Your task to perform on an android device: make emails show in primary in the gmail app Image 0: 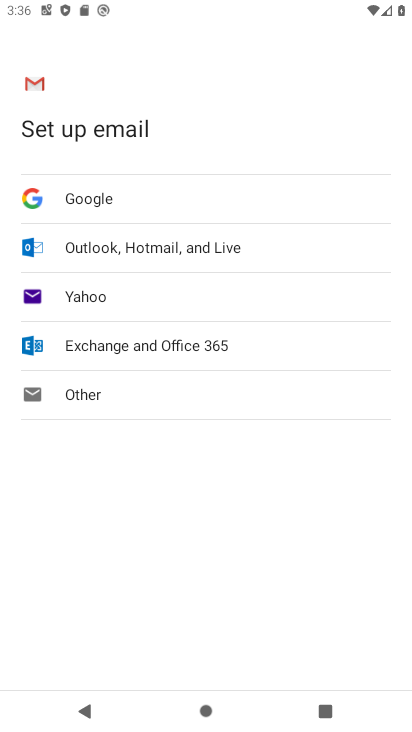
Step 0: press back button
Your task to perform on an android device: make emails show in primary in the gmail app Image 1: 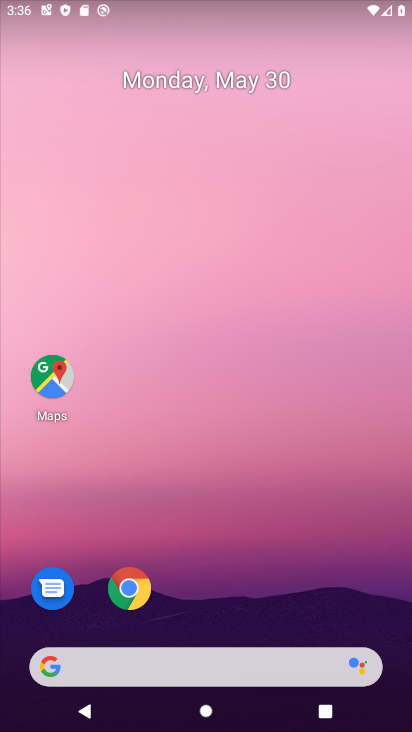
Step 1: drag from (215, 591) to (200, 11)
Your task to perform on an android device: make emails show in primary in the gmail app Image 2: 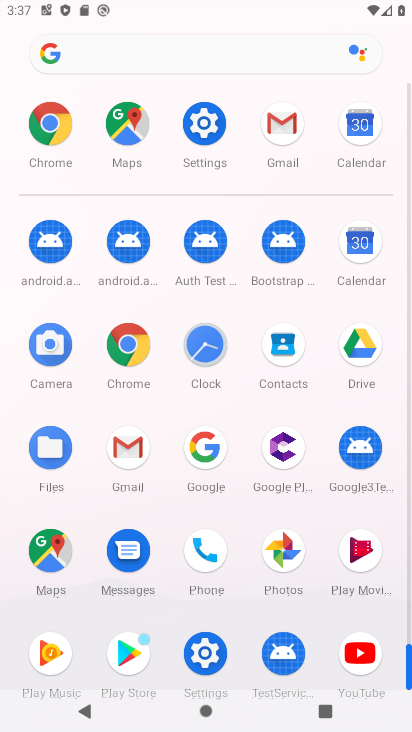
Step 2: drag from (6, 605) to (9, 298)
Your task to perform on an android device: make emails show in primary in the gmail app Image 3: 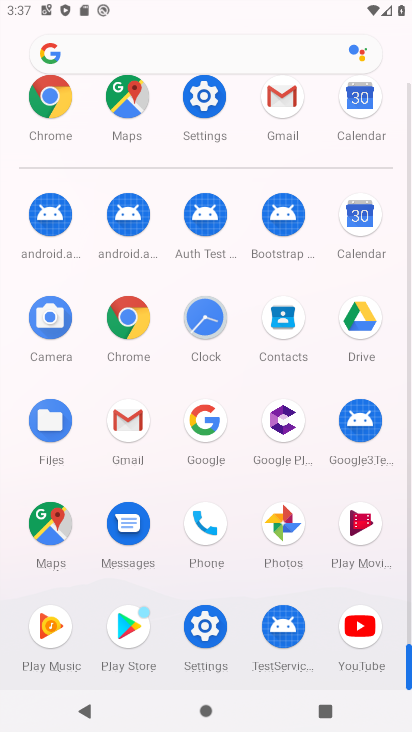
Step 3: click (124, 411)
Your task to perform on an android device: make emails show in primary in the gmail app Image 4: 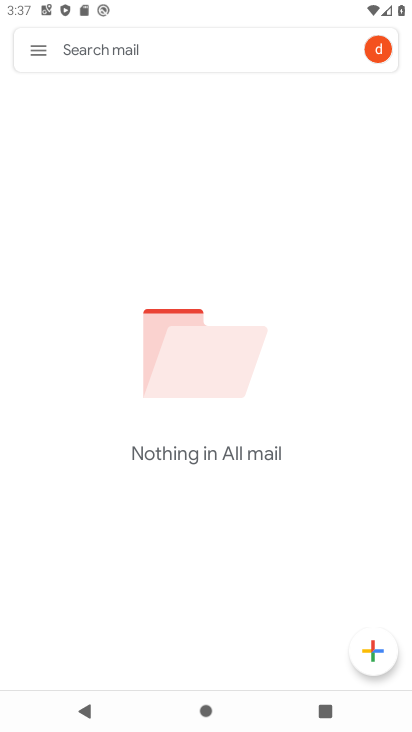
Step 4: click (37, 49)
Your task to perform on an android device: make emails show in primary in the gmail app Image 5: 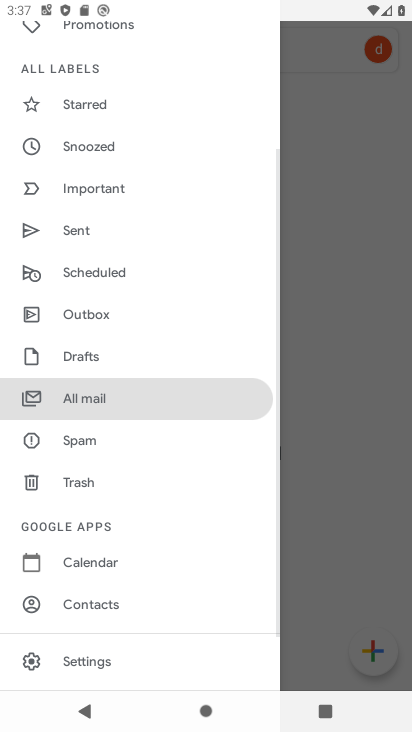
Step 5: click (95, 655)
Your task to perform on an android device: make emails show in primary in the gmail app Image 6: 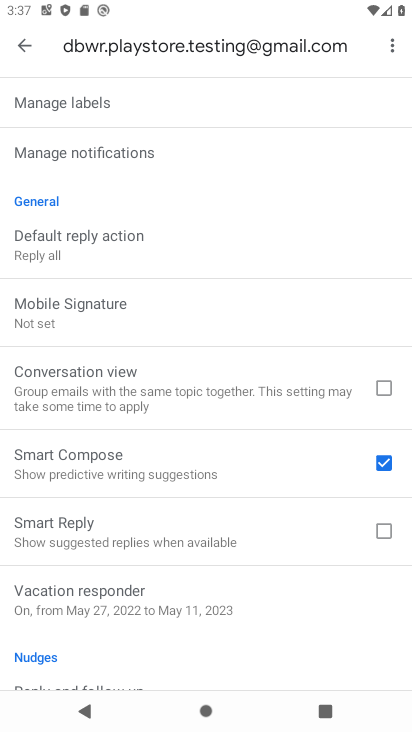
Step 6: drag from (219, 577) to (229, 169)
Your task to perform on an android device: make emails show in primary in the gmail app Image 7: 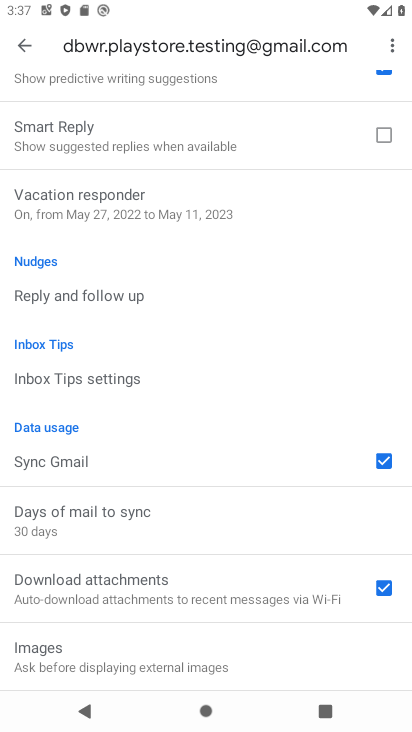
Step 7: drag from (205, 623) to (233, 288)
Your task to perform on an android device: make emails show in primary in the gmail app Image 8: 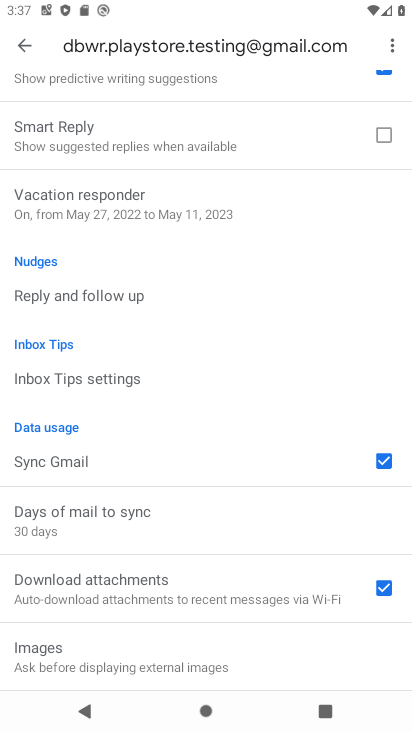
Step 8: drag from (256, 169) to (256, 632)
Your task to perform on an android device: make emails show in primary in the gmail app Image 9: 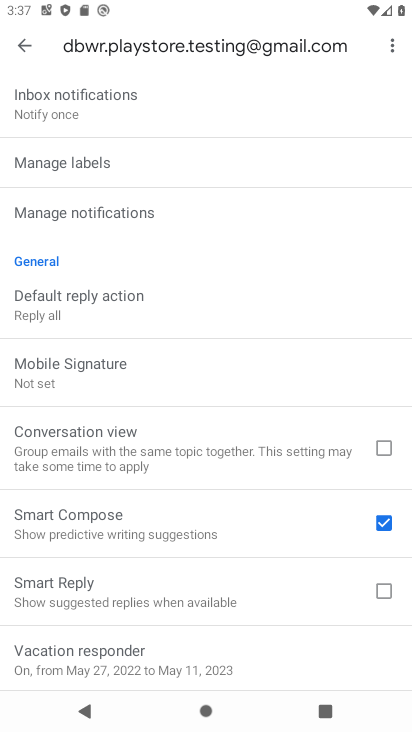
Step 9: drag from (157, 180) to (161, 592)
Your task to perform on an android device: make emails show in primary in the gmail app Image 10: 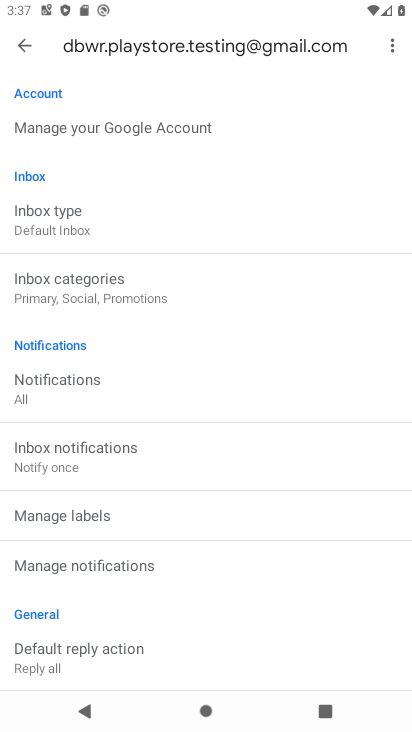
Step 10: click (106, 215)
Your task to perform on an android device: make emails show in primary in the gmail app Image 11: 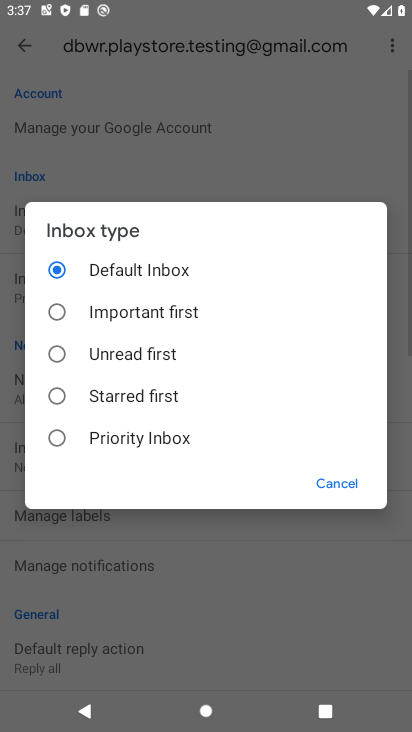
Step 11: click (120, 276)
Your task to perform on an android device: make emails show in primary in the gmail app Image 12: 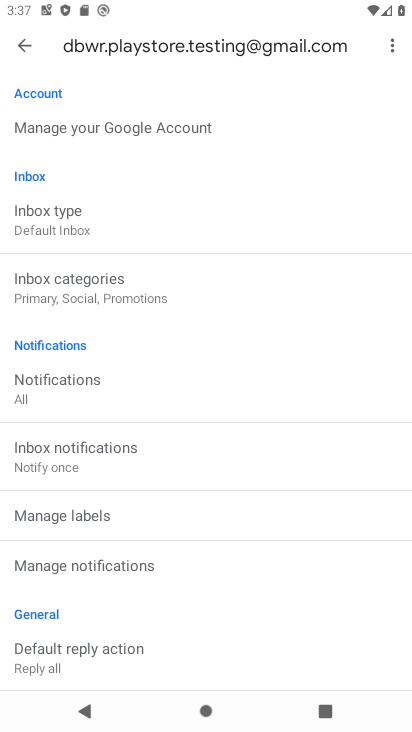
Step 12: click (118, 285)
Your task to perform on an android device: make emails show in primary in the gmail app Image 13: 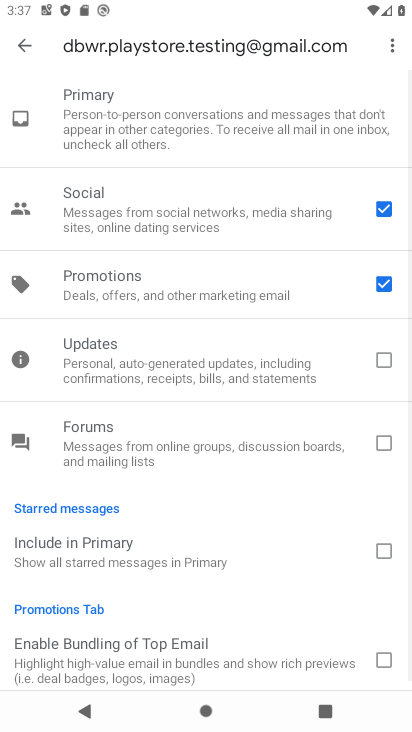
Step 13: click (371, 285)
Your task to perform on an android device: make emails show in primary in the gmail app Image 14: 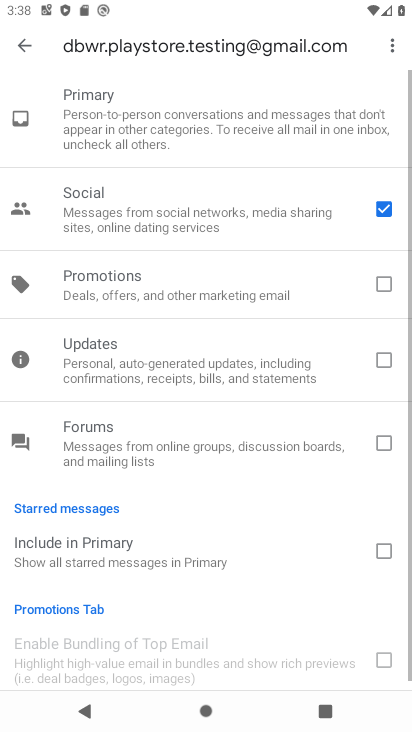
Step 14: click (392, 209)
Your task to perform on an android device: make emails show in primary in the gmail app Image 15: 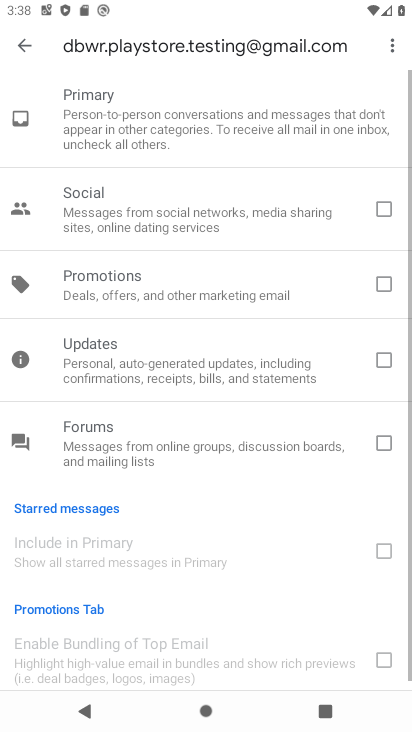
Step 15: click (20, 47)
Your task to perform on an android device: make emails show in primary in the gmail app Image 16: 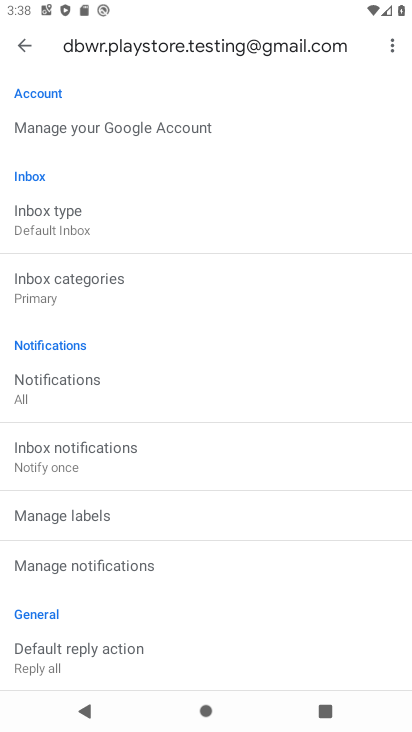
Step 16: task complete